Your task to perform on an android device: install app "Google Find My Device" Image 0: 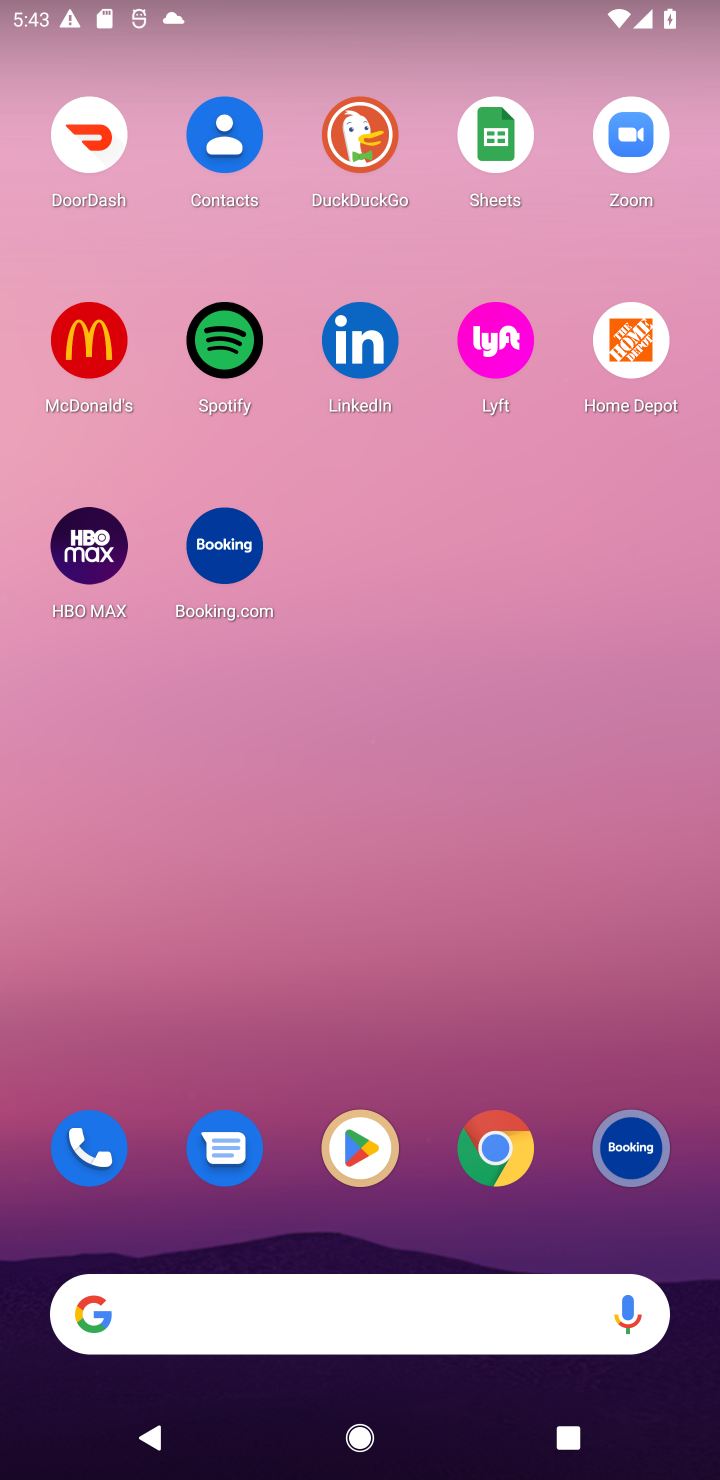
Step 0: drag from (396, 1197) to (450, 125)
Your task to perform on an android device: install app "Google Find My Device" Image 1: 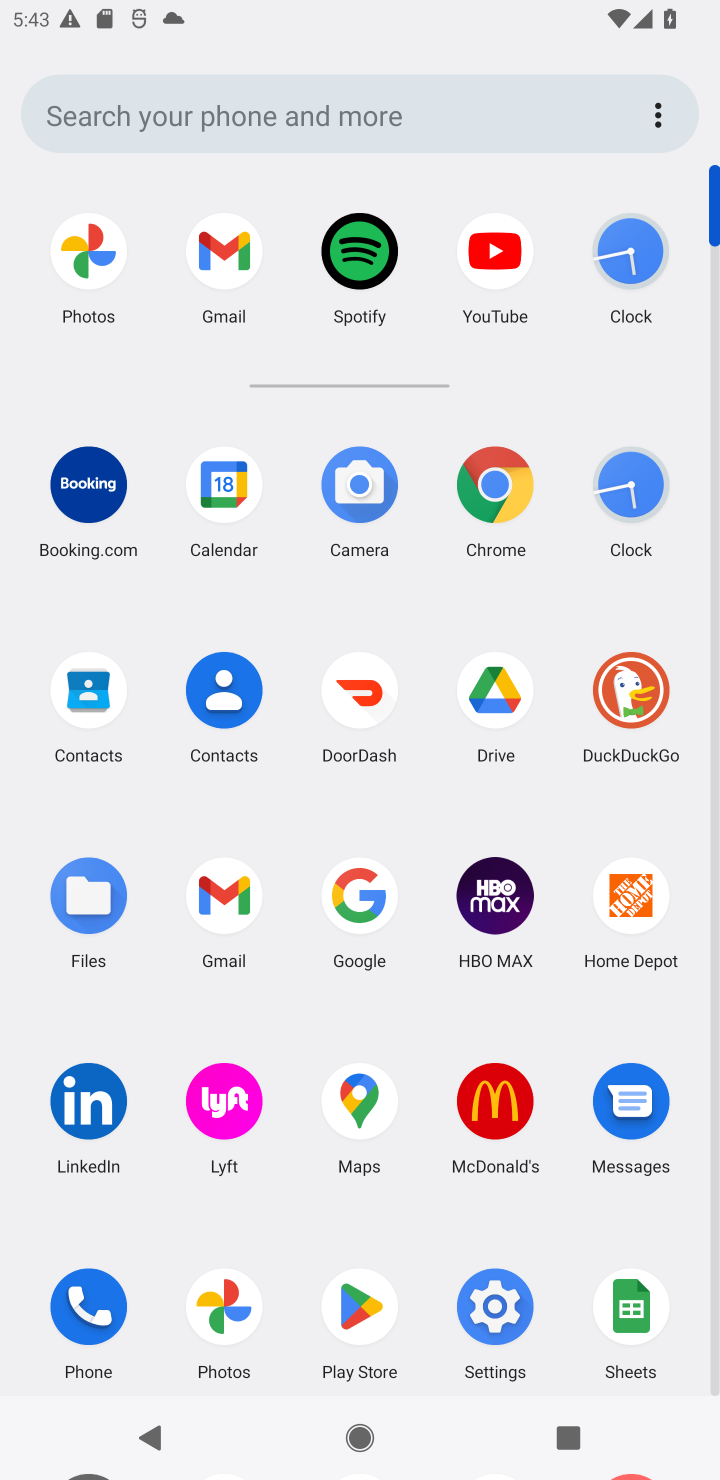
Step 1: click (348, 1298)
Your task to perform on an android device: install app "Google Find My Device" Image 2: 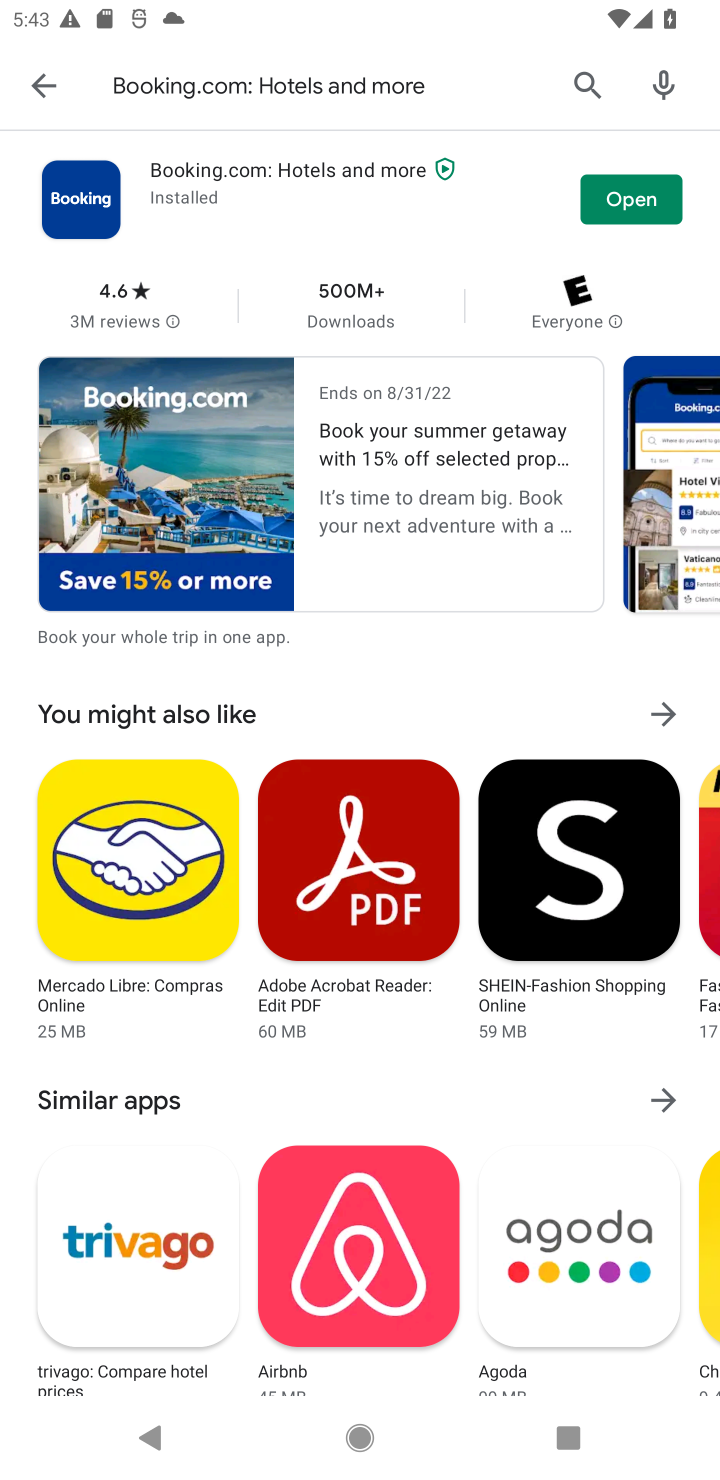
Step 2: press back button
Your task to perform on an android device: install app "Google Find My Device" Image 3: 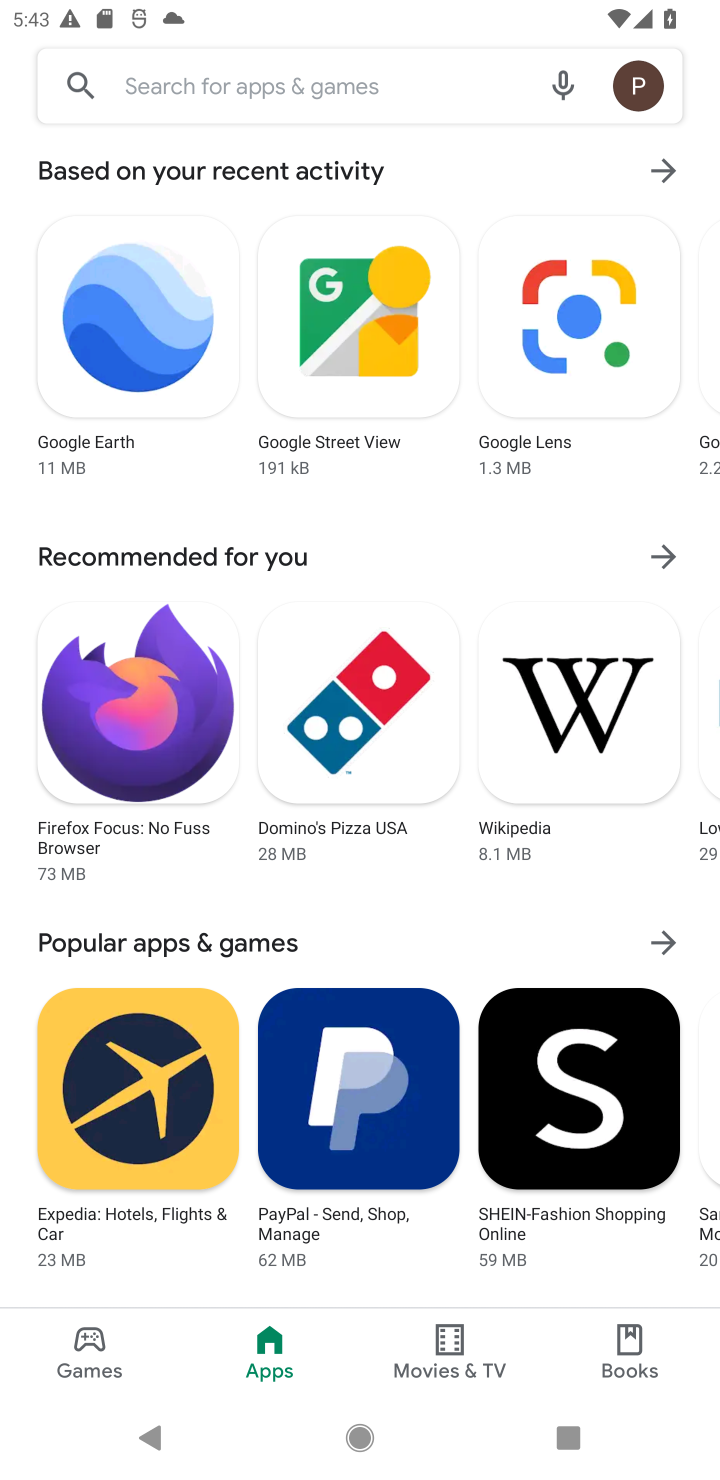
Step 3: click (349, 62)
Your task to perform on an android device: install app "Google Find My Device" Image 4: 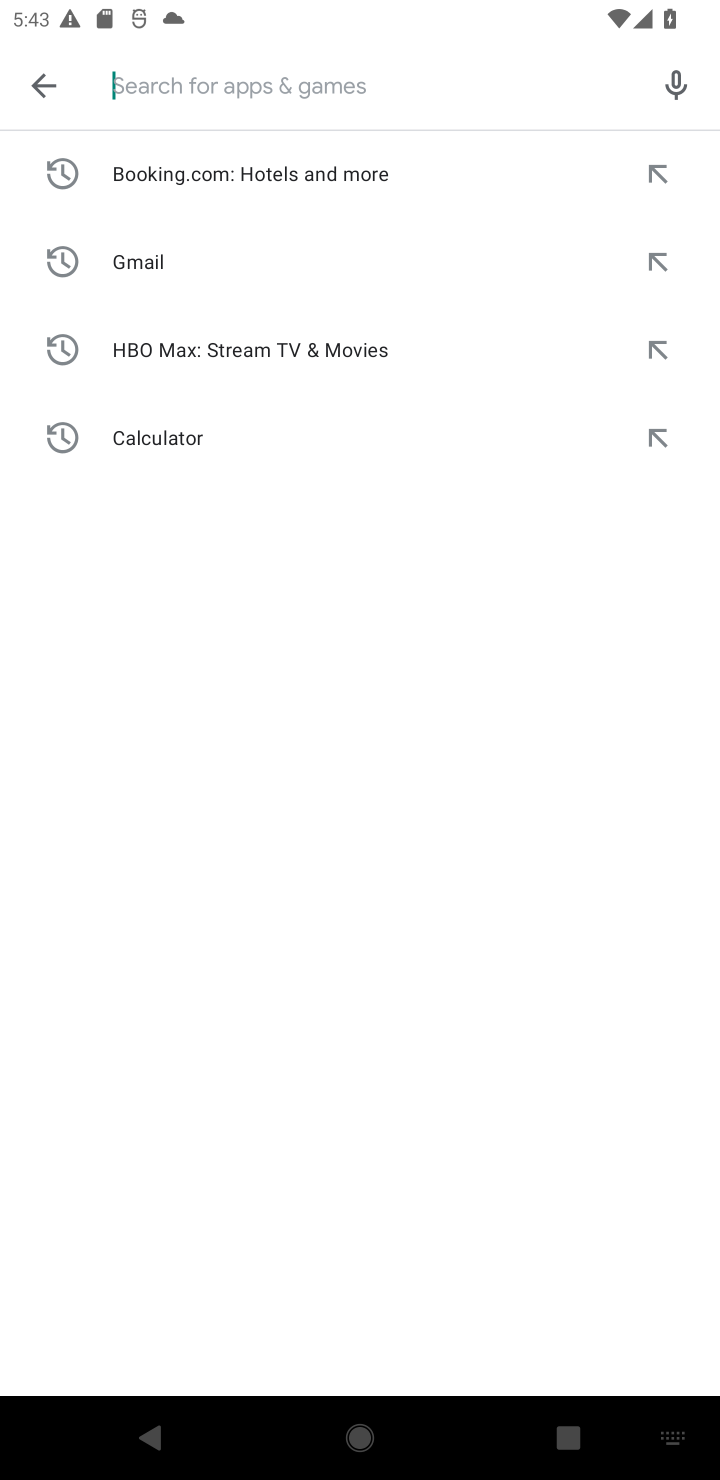
Step 4: type "Google Find My Device"
Your task to perform on an android device: install app "Google Find My Device" Image 5: 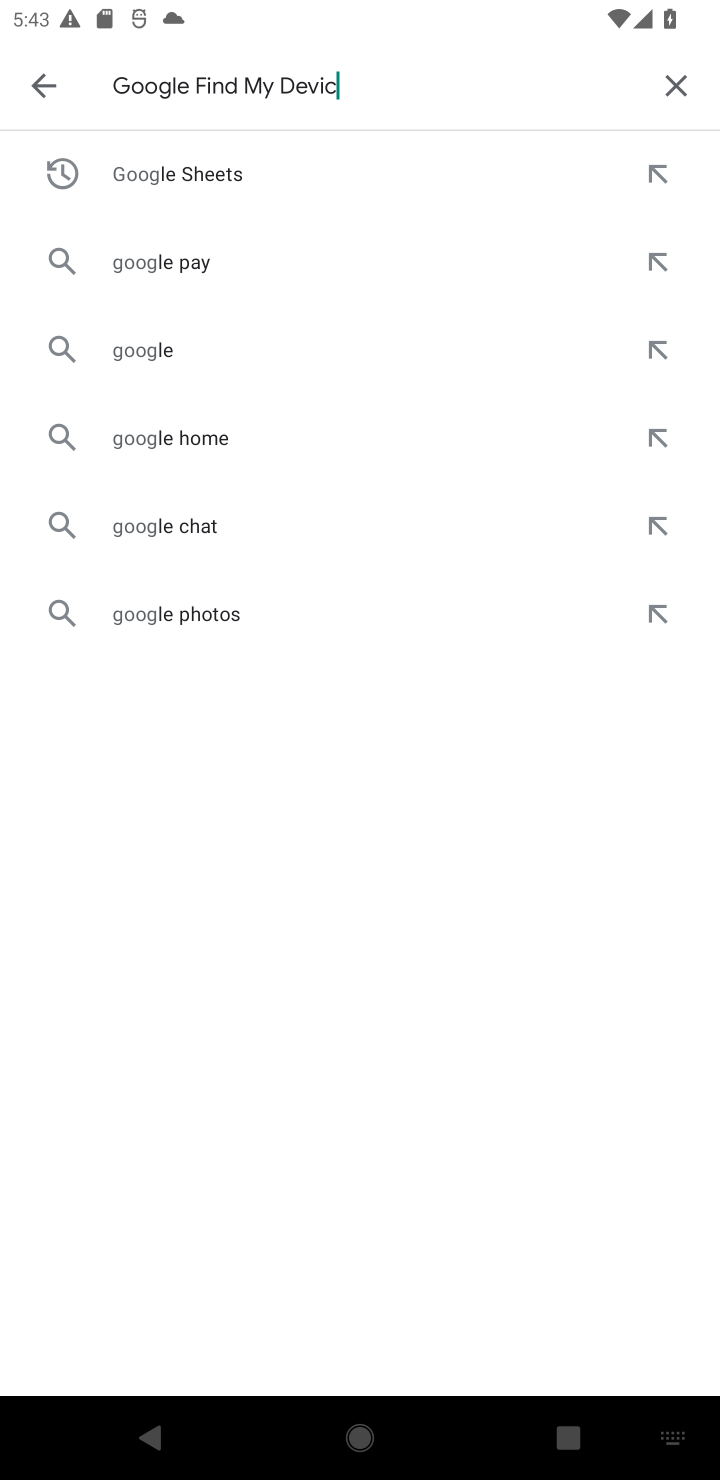
Step 5: press enter
Your task to perform on an android device: install app "Google Find My Device" Image 6: 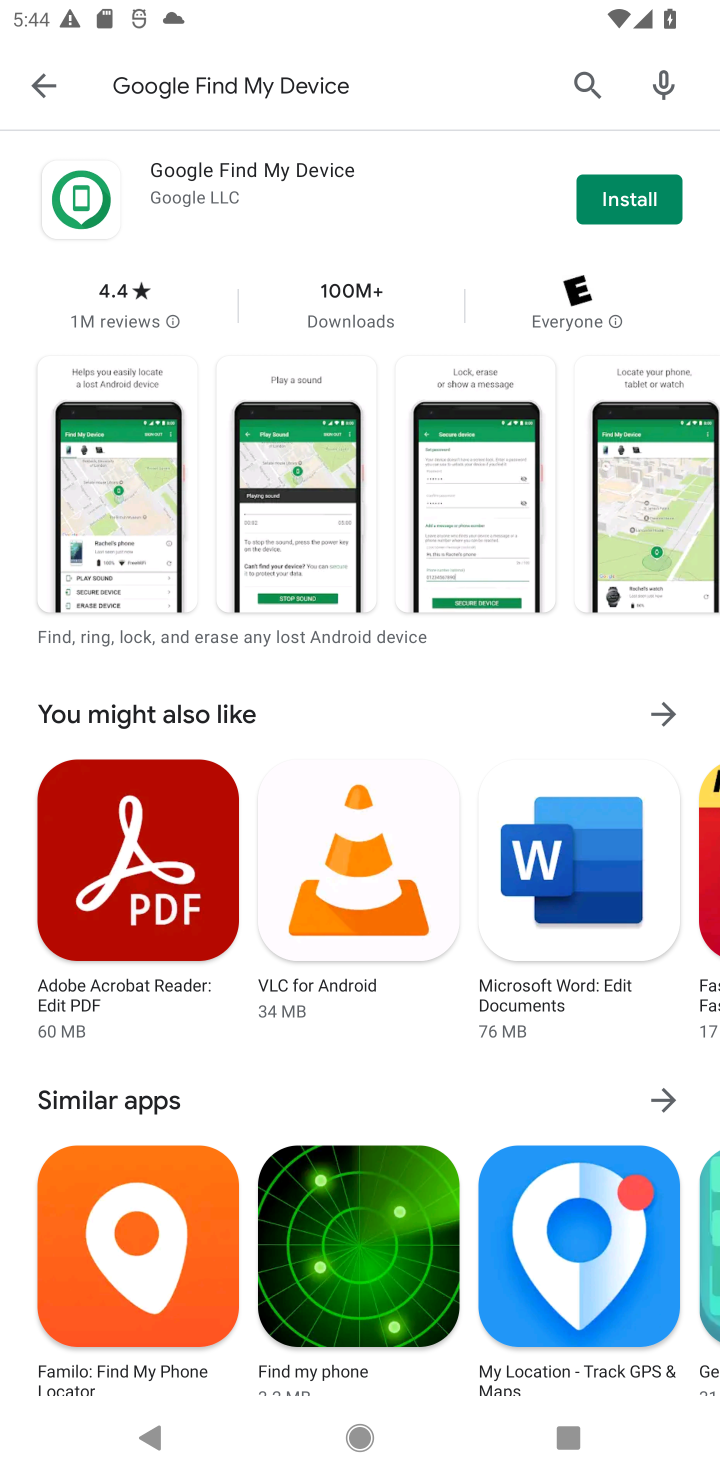
Step 6: click (657, 198)
Your task to perform on an android device: install app "Google Find My Device" Image 7: 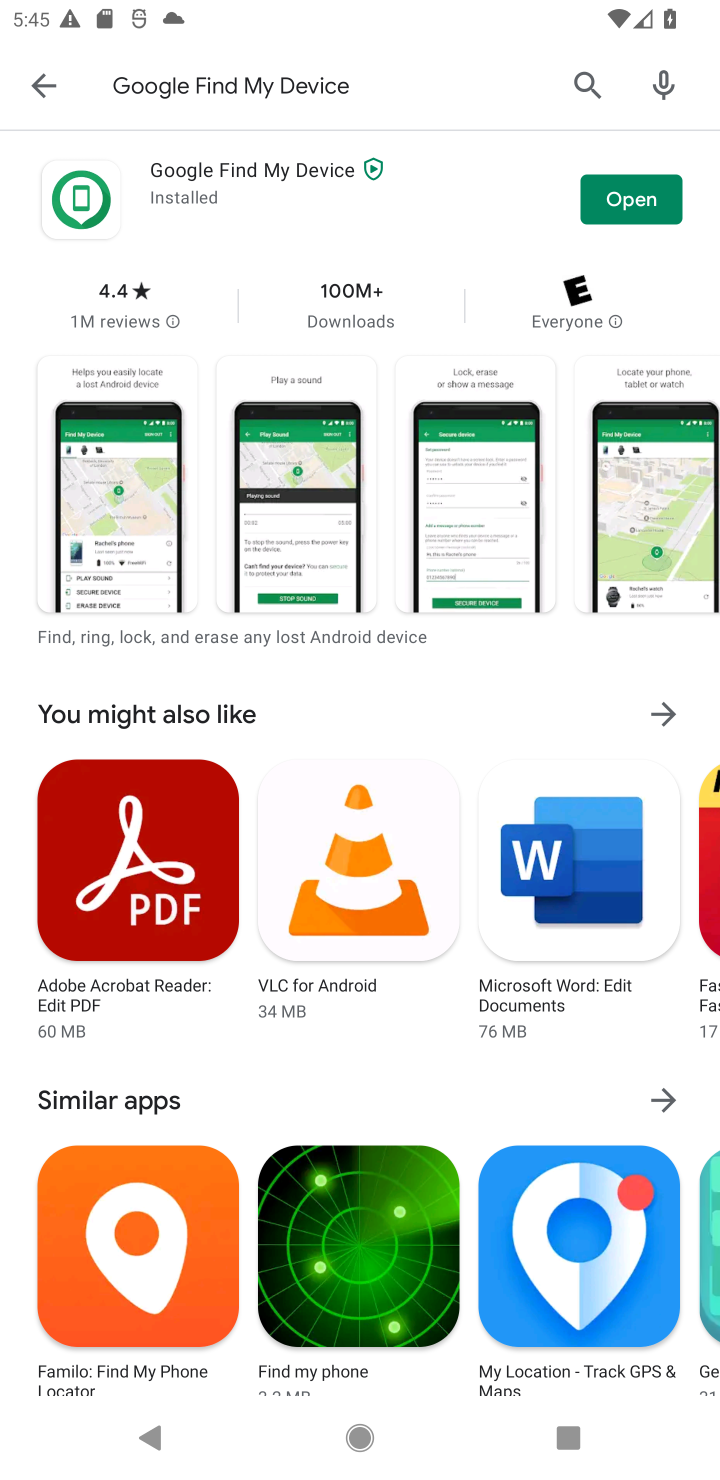
Step 7: task complete